Your task to perform on an android device: change notification settings in the gmail app Image 0: 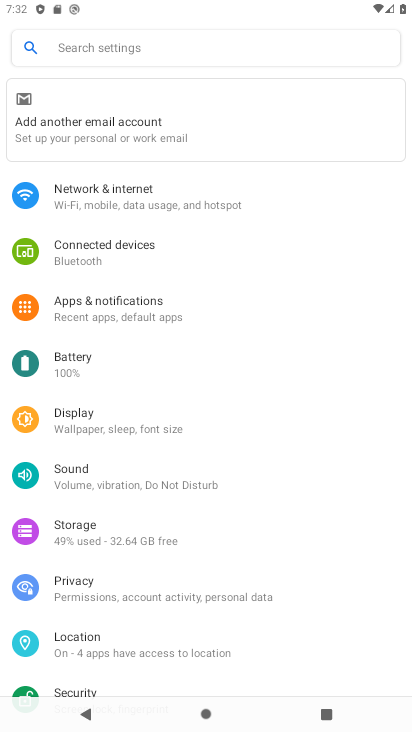
Step 0: press home button
Your task to perform on an android device: change notification settings in the gmail app Image 1: 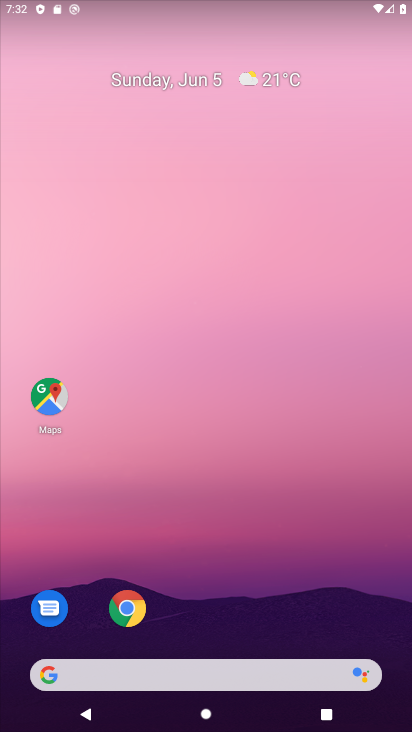
Step 1: drag from (269, 545) to (275, 265)
Your task to perform on an android device: change notification settings in the gmail app Image 2: 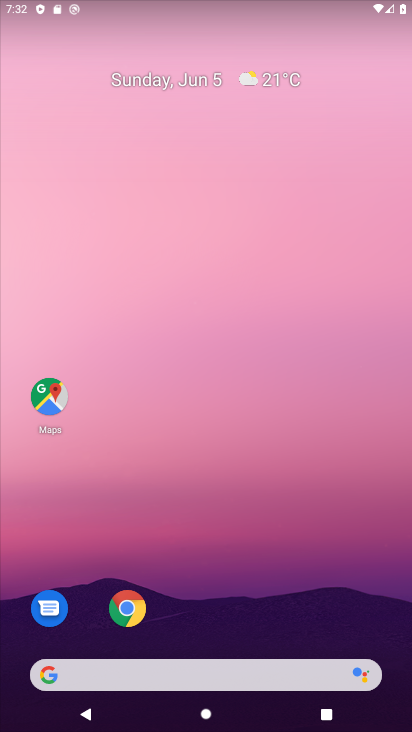
Step 2: drag from (334, 555) to (316, 217)
Your task to perform on an android device: change notification settings in the gmail app Image 3: 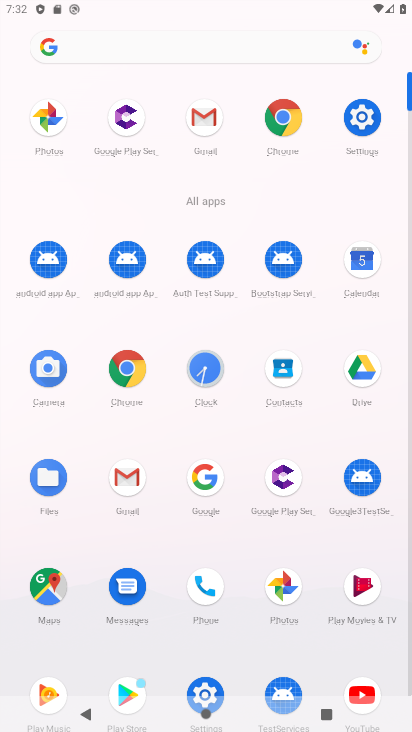
Step 3: click (127, 476)
Your task to perform on an android device: change notification settings in the gmail app Image 4: 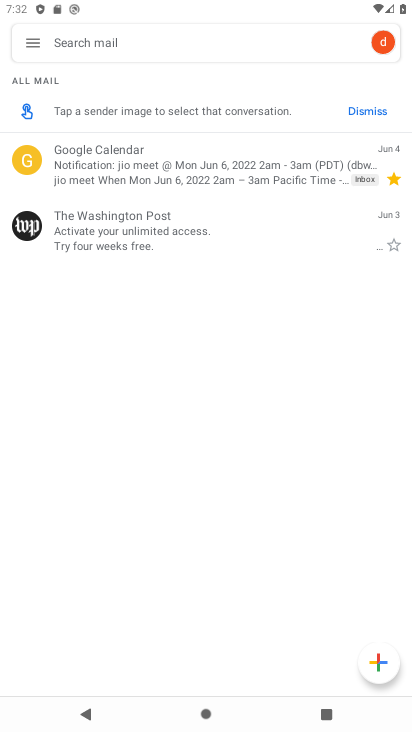
Step 4: click (29, 45)
Your task to perform on an android device: change notification settings in the gmail app Image 5: 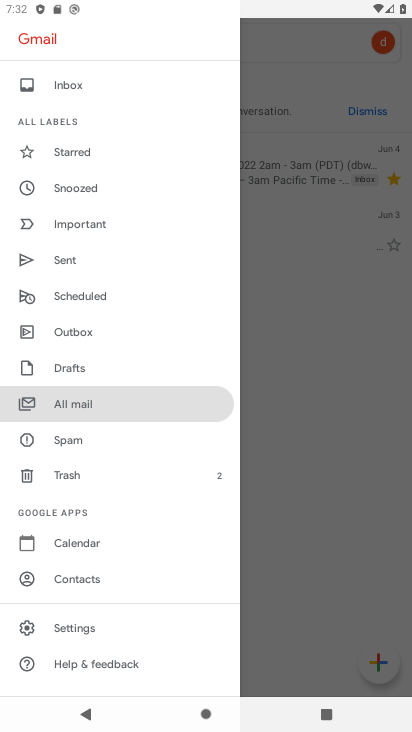
Step 5: click (108, 630)
Your task to perform on an android device: change notification settings in the gmail app Image 6: 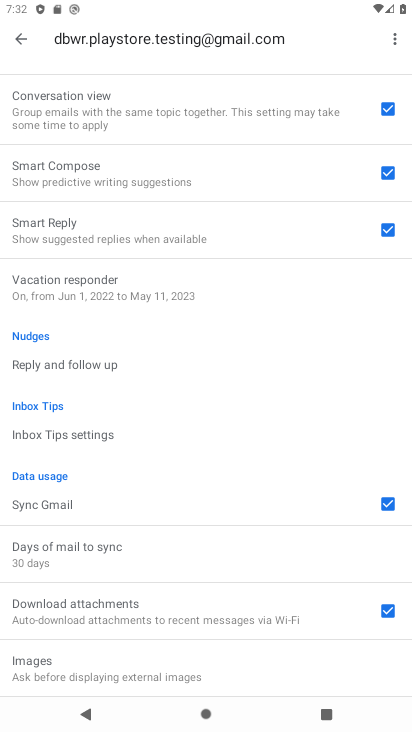
Step 6: drag from (196, 523) to (193, 260)
Your task to perform on an android device: change notification settings in the gmail app Image 7: 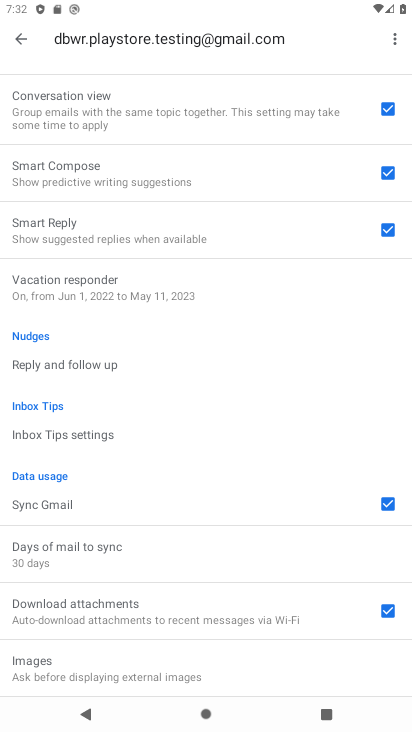
Step 7: drag from (213, 143) to (290, 640)
Your task to perform on an android device: change notification settings in the gmail app Image 8: 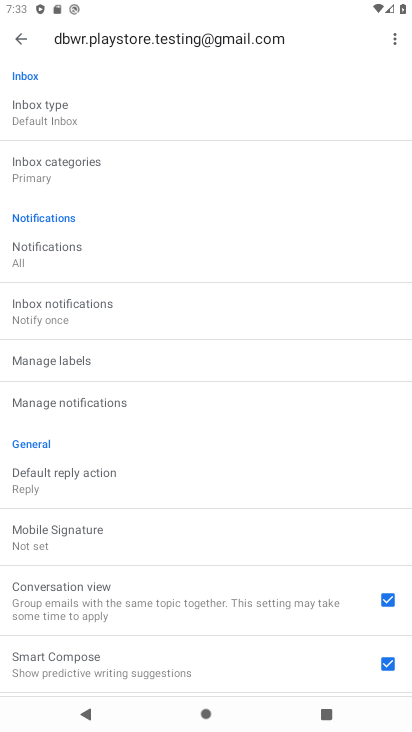
Step 8: click (13, 247)
Your task to perform on an android device: change notification settings in the gmail app Image 9: 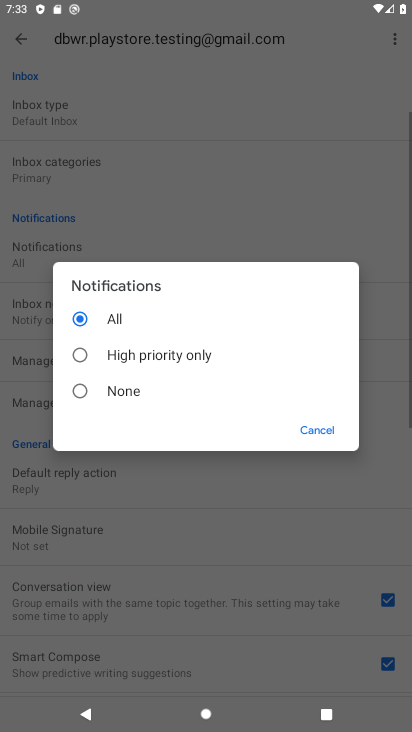
Step 9: click (80, 357)
Your task to perform on an android device: change notification settings in the gmail app Image 10: 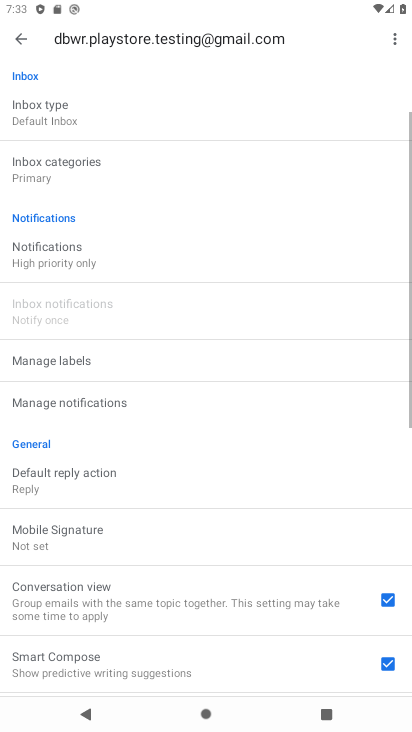
Step 10: task complete